Your task to perform on an android device: move a message to another label in the gmail app Image 0: 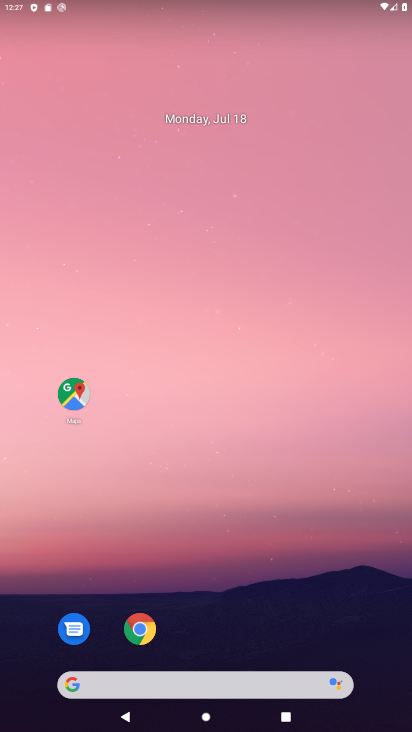
Step 0: drag from (268, 546) to (175, 15)
Your task to perform on an android device: move a message to another label in the gmail app Image 1: 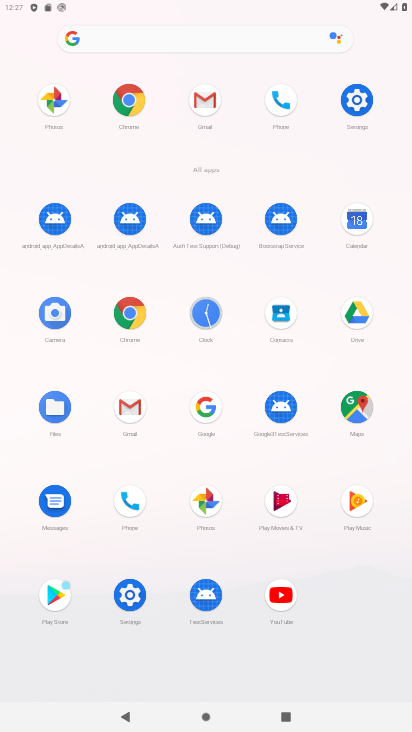
Step 1: click (205, 98)
Your task to perform on an android device: move a message to another label in the gmail app Image 2: 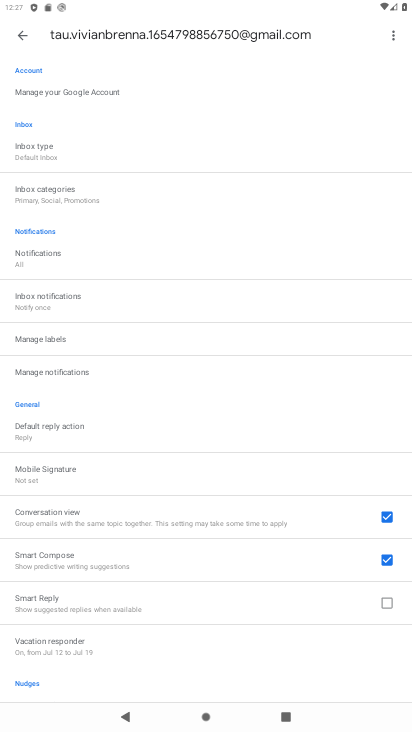
Step 2: click (20, 33)
Your task to perform on an android device: move a message to another label in the gmail app Image 3: 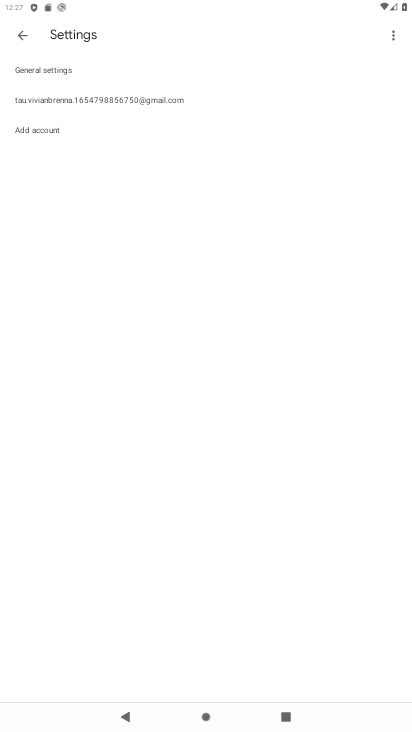
Step 3: click (17, 31)
Your task to perform on an android device: move a message to another label in the gmail app Image 4: 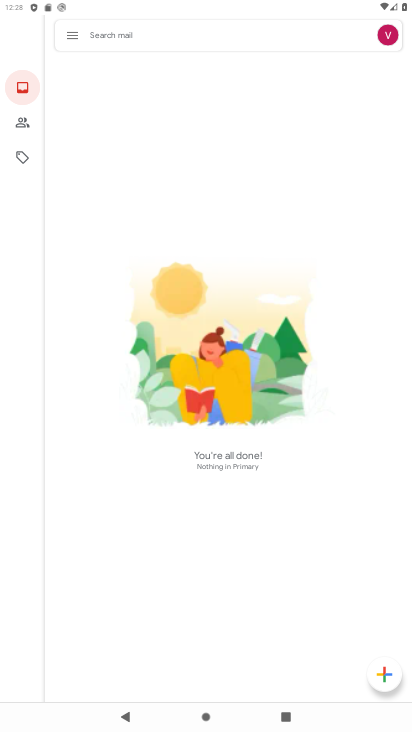
Step 4: click (71, 28)
Your task to perform on an android device: move a message to another label in the gmail app Image 5: 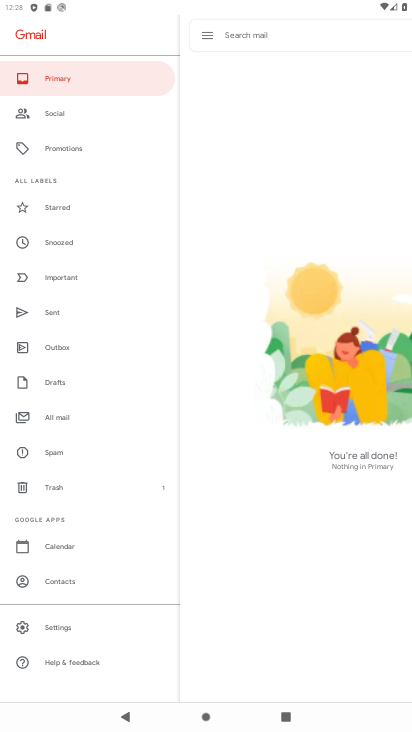
Step 5: click (54, 421)
Your task to perform on an android device: move a message to another label in the gmail app Image 6: 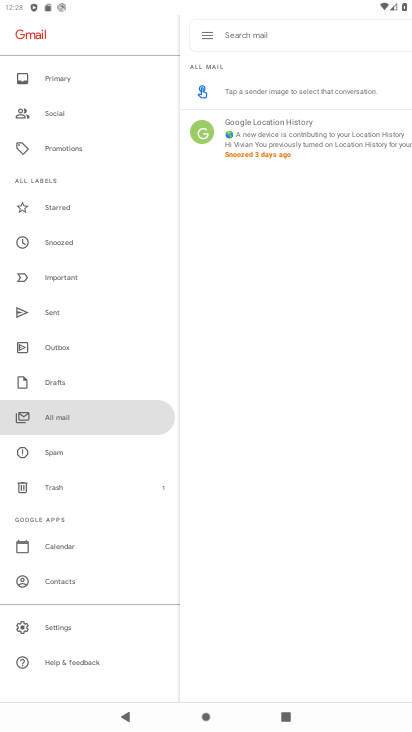
Step 6: click (291, 152)
Your task to perform on an android device: move a message to another label in the gmail app Image 7: 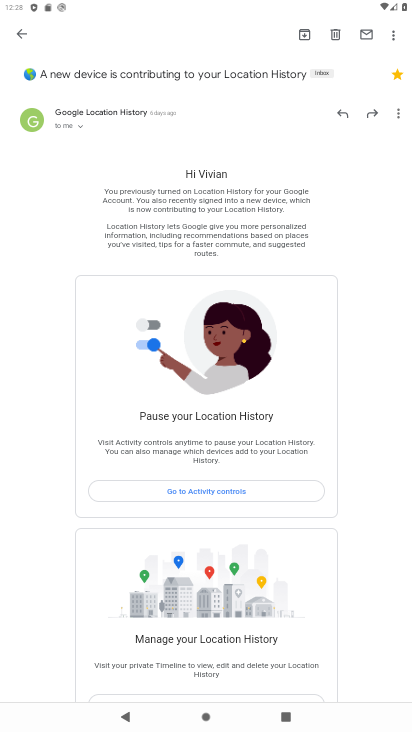
Step 7: click (394, 37)
Your task to perform on an android device: move a message to another label in the gmail app Image 8: 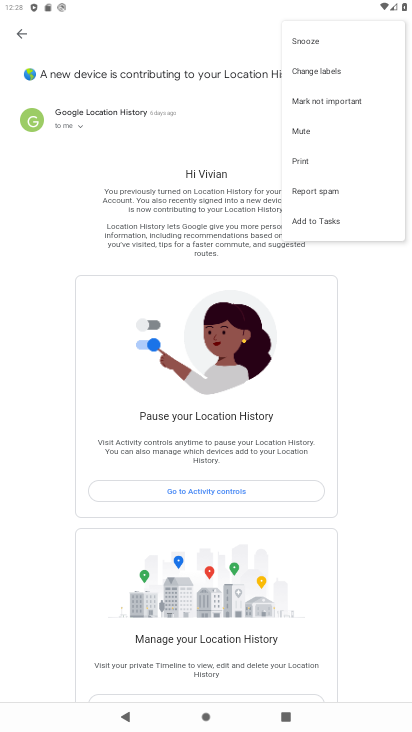
Step 8: click (342, 70)
Your task to perform on an android device: move a message to another label in the gmail app Image 9: 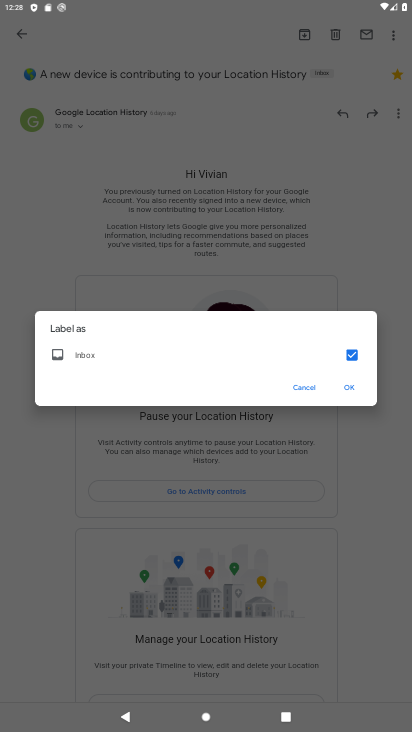
Step 9: click (350, 387)
Your task to perform on an android device: move a message to another label in the gmail app Image 10: 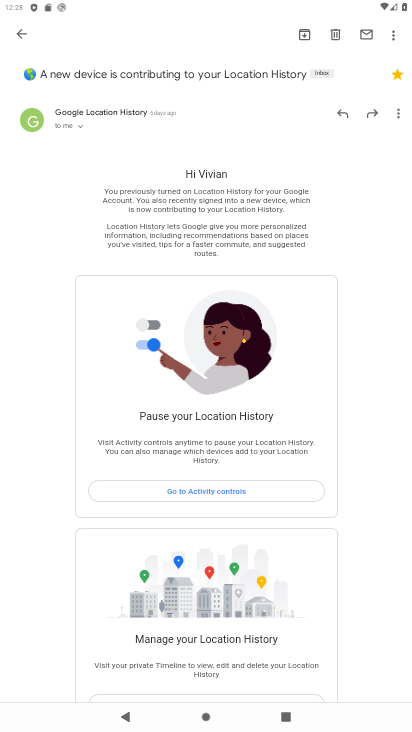
Step 10: task complete